Your task to perform on an android device: choose inbox layout in the gmail app Image 0: 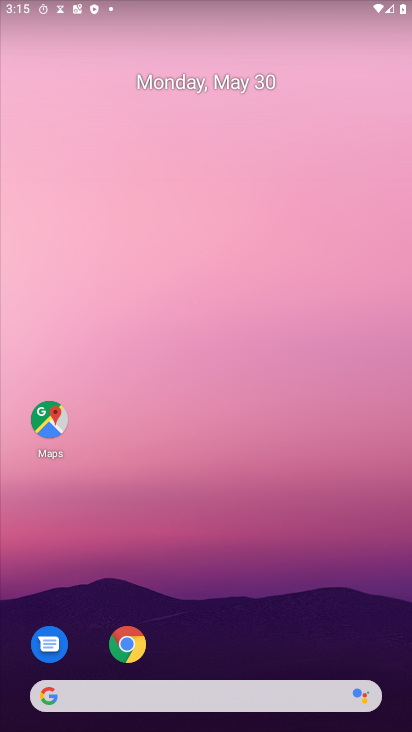
Step 0: press home button
Your task to perform on an android device: choose inbox layout in the gmail app Image 1: 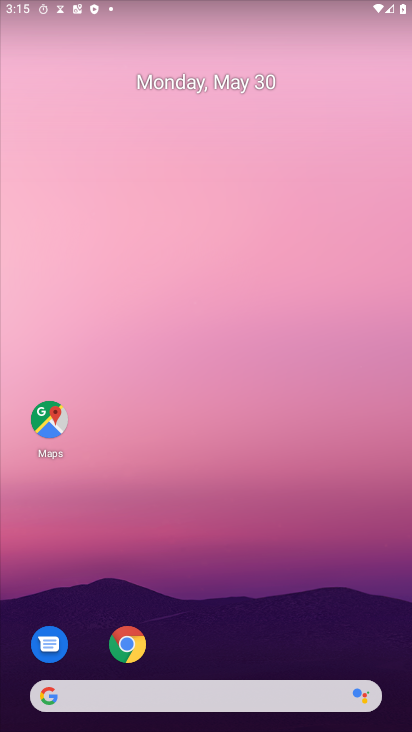
Step 1: drag from (251, 625) to (256, 159)
Your task to perform on an android device: choose inbox layout in the gmail app Image 2: 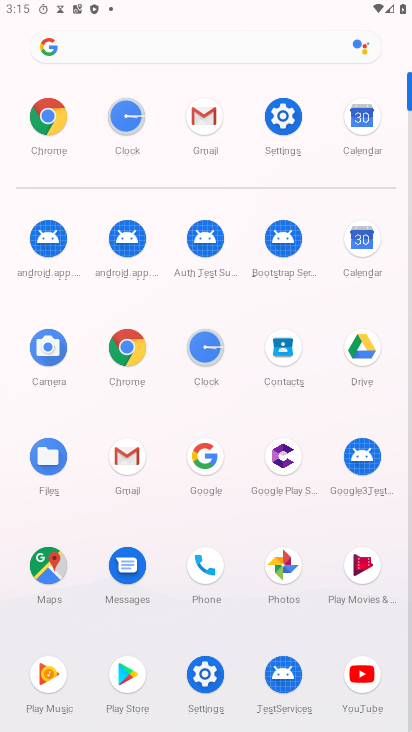
Step 2: click (206, 119)
Your task to perform on an android device: choose inbox layout in the gmail app Image 3: 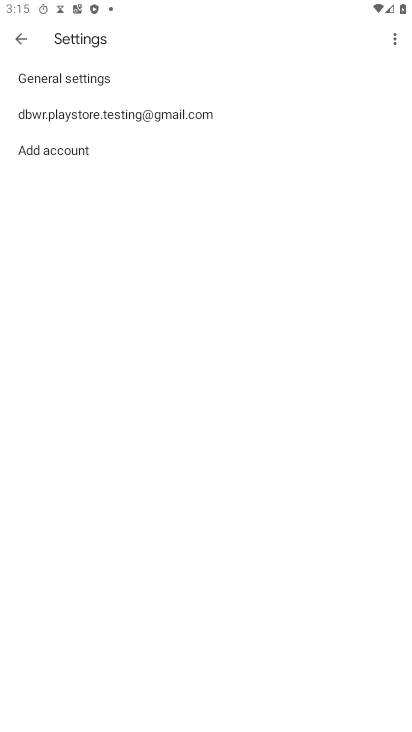
Step 3: click (98, 115)
Your task to perform on an android device: choose inbox layout in the gmail app Image 4: 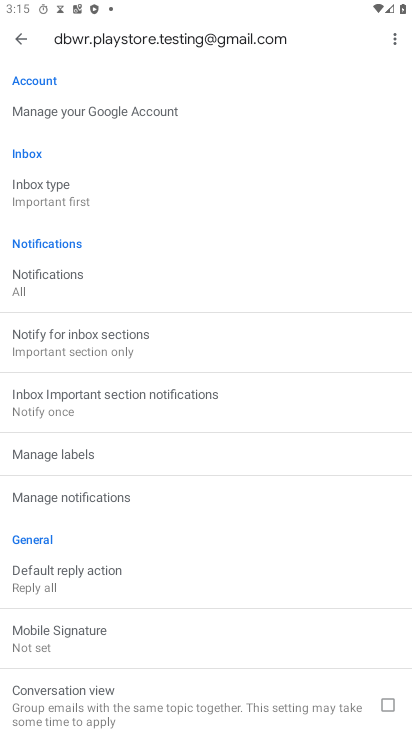
Step 4: task complete